Your task to perform on an android device: delete browsing data in the chrome app Image 0: 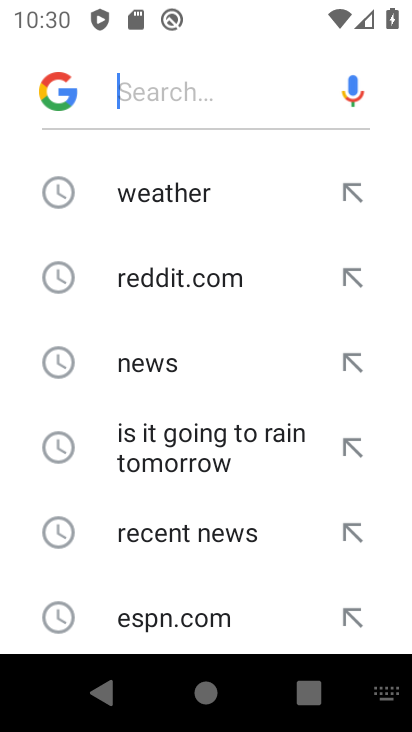
Step 0: press home button
Your task to perform on an android device: delete browsing data in the chrome app Image 1: 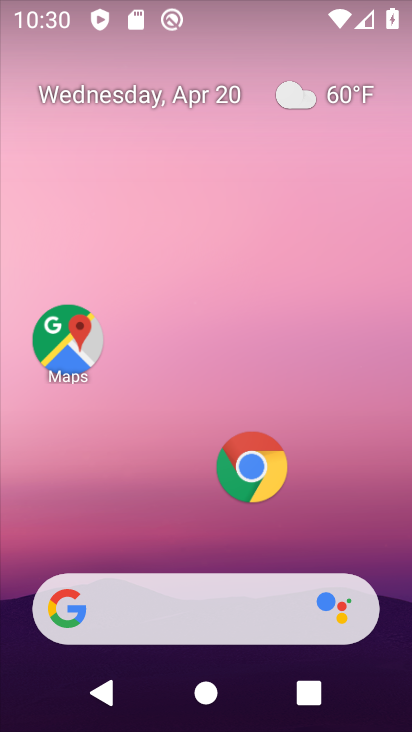
Step 1: click (246, 476)
Your task to perform on an android device: delete browsing data in the chrome app Image 2: 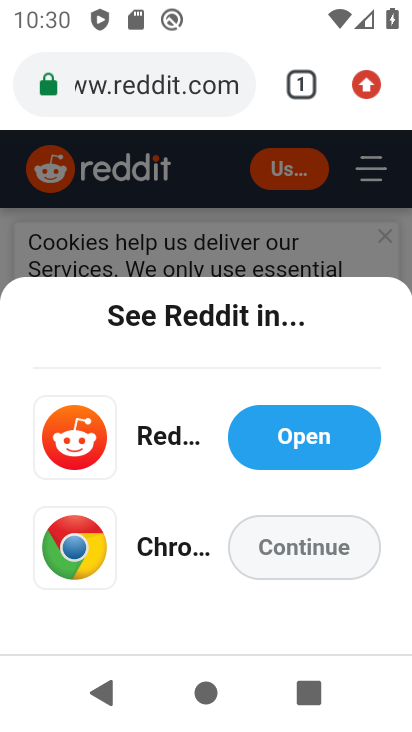
Step 2: click (362, 89)
Your task to perform on an android device: delete browsing data in the chrome app Image 3: 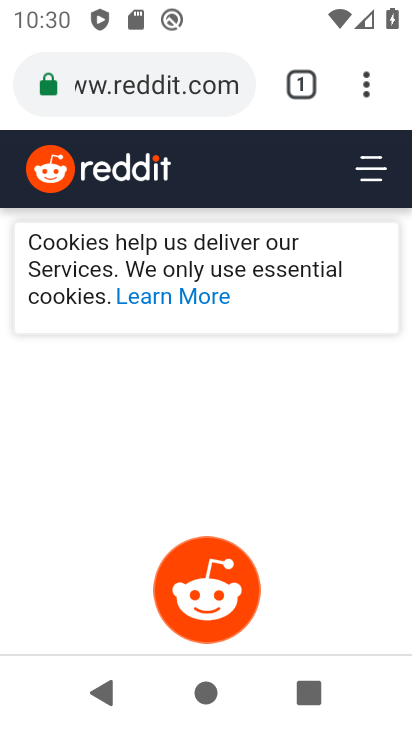
Step 3: click (364, 91)
Your task to perform on an android device: delete browsing data in the chrome app Image 4: 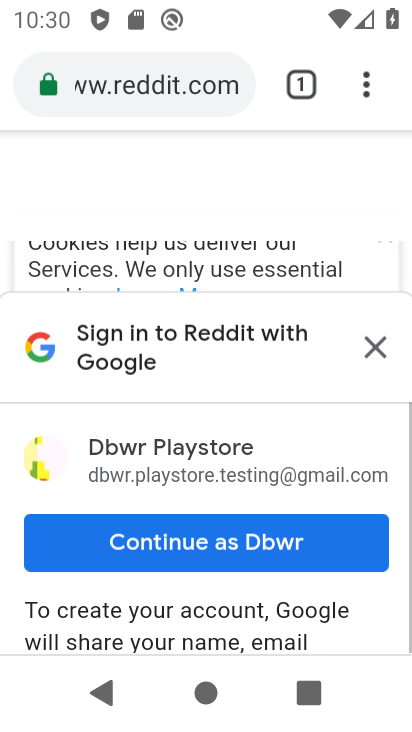
Step 4: click (364, 91)
Your task to perform on an android device: delete browsing data in the chrome app Image 5: 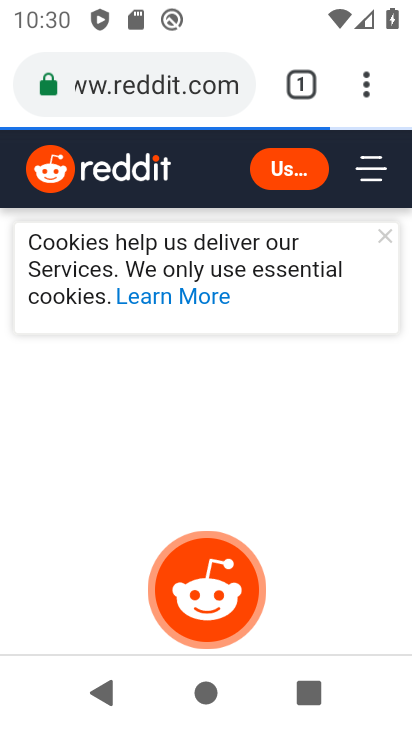
Step 5: click (369, 85)
Your task to perform on an android device: delete browsing data in the chrome app Image 6: 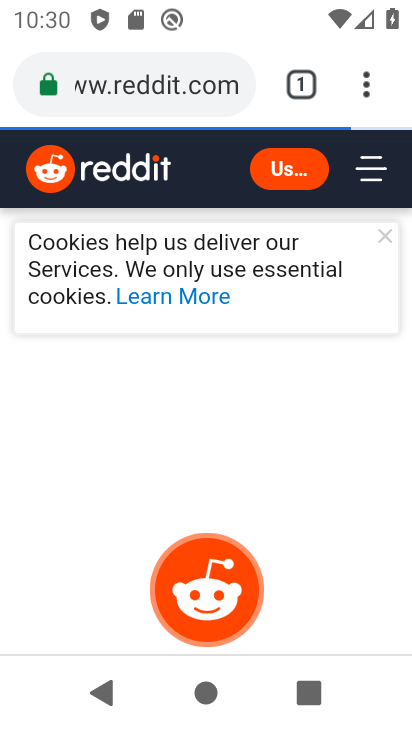
Step 6: click (369, 85)
Your task to perform on an android device: delete browsing data in the chrome app Image 7: 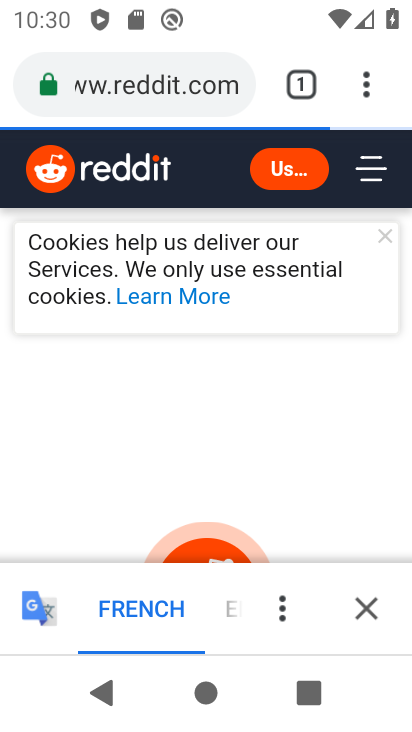
Step 7: click (369, 90)
Your task to perform on an android device: delete browsing data in the chrome app Image 8: 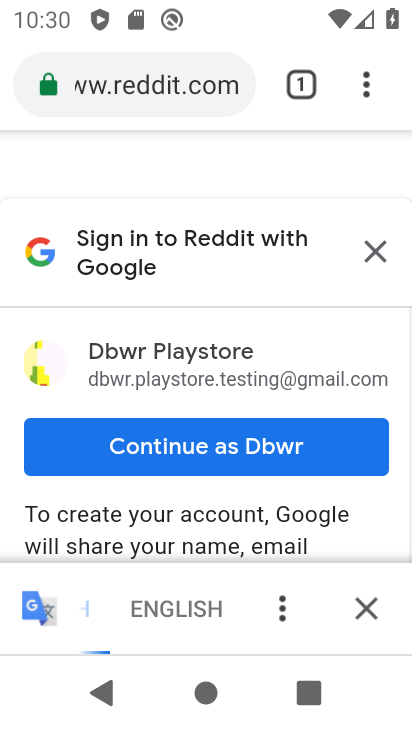
Step 8: click (369, 90)
Your task to perform on an android device: delete browsing data in the chrome app Image 9: 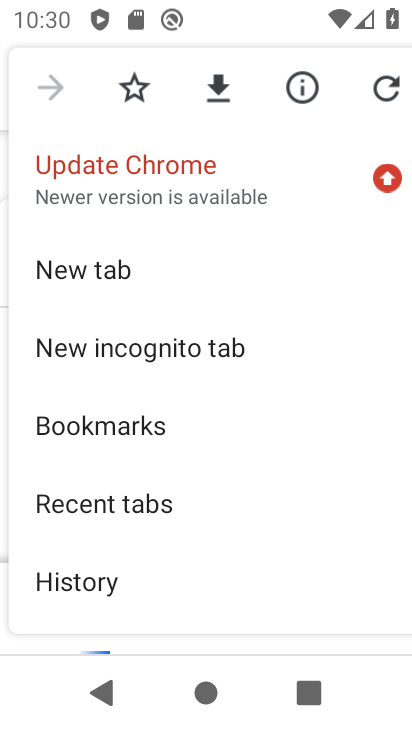
Step 9: click (69, 580)
Your task to perform on an android device: delete browsing data in the chrome app Image 10: 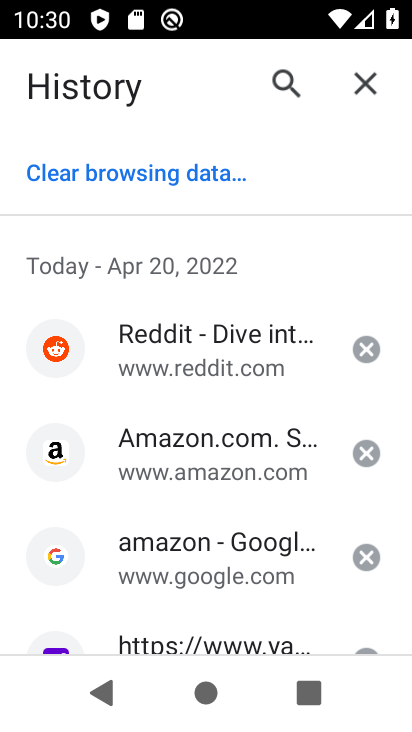
Step 10: click (128, 177)
Your task to perform on an android device: delete browsing data in the chrome app Image 11: 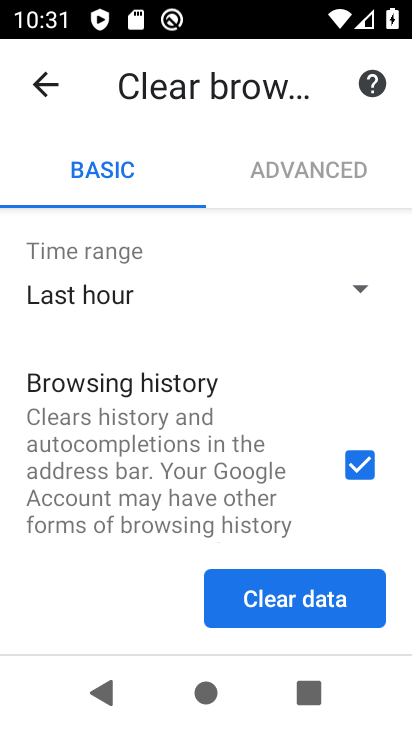
Step 11: click (260, 607)
Your task to perform on an android device: delete browsing data in the chrome app Image 12: 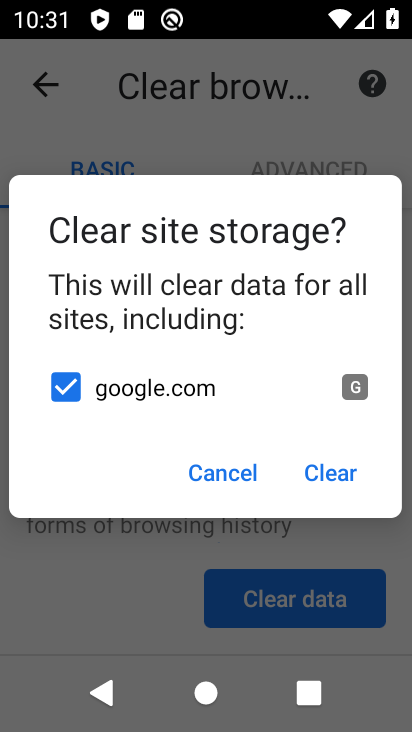
Step 12: click (326, 482)
Your task to perform on an android device: delete browsing data in the chrome app Image 13: 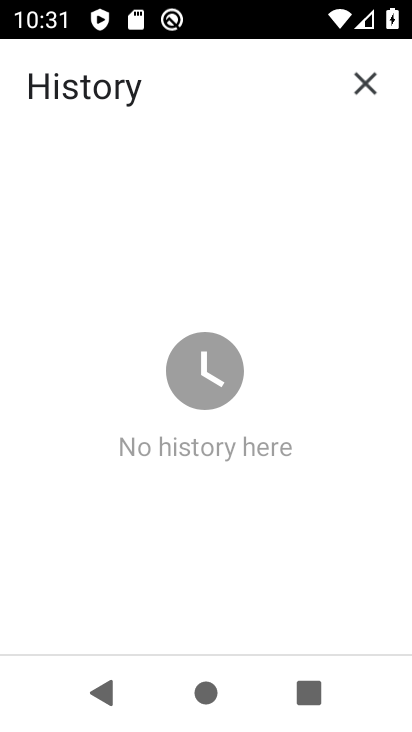
Step 13: task complete